Your task to perform on an android device: Open Google Chrome and click the shortcut for Amazon.com Image 0: 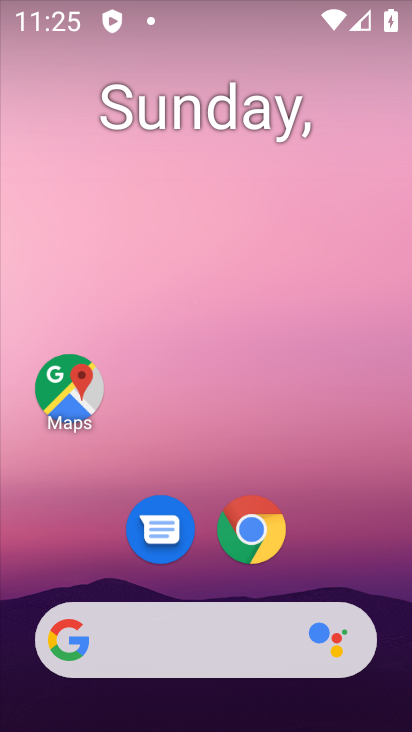
Step 0: click (250, 530)
Your task to perform on an android device: Open Google Chrome and click the shortcut for Amazon.com Image 1: 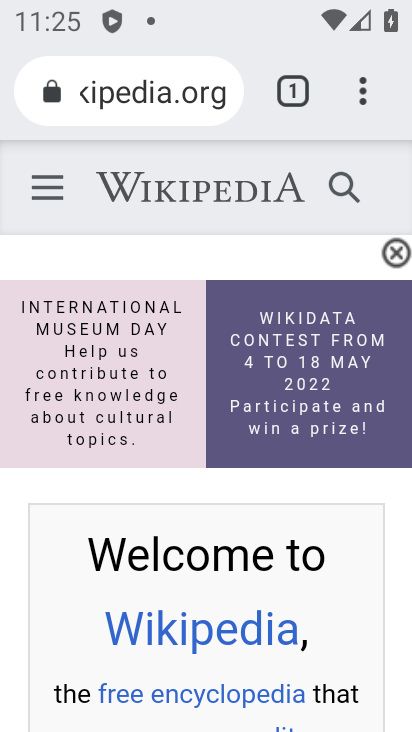
Step 1: click (227, 99)
Your task to perform on an android device: Open Google Chrome and click the shortcut for Amazon.com Image 2: 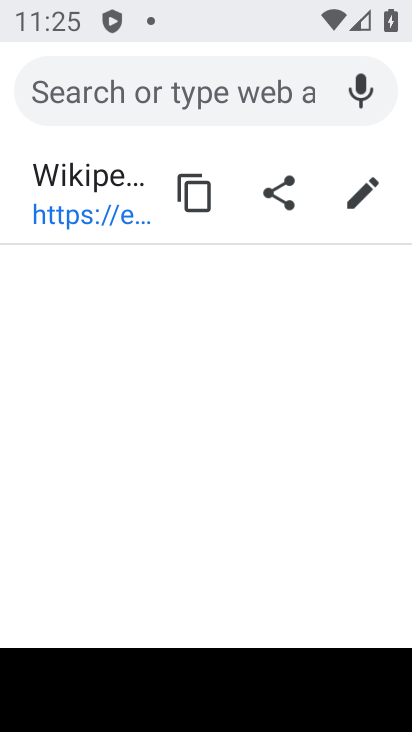
Step 2: type "Amazon.com"
Your task to perform on an android device: Open Google Chrome and click the shortcut for Amazon.com Image 3: 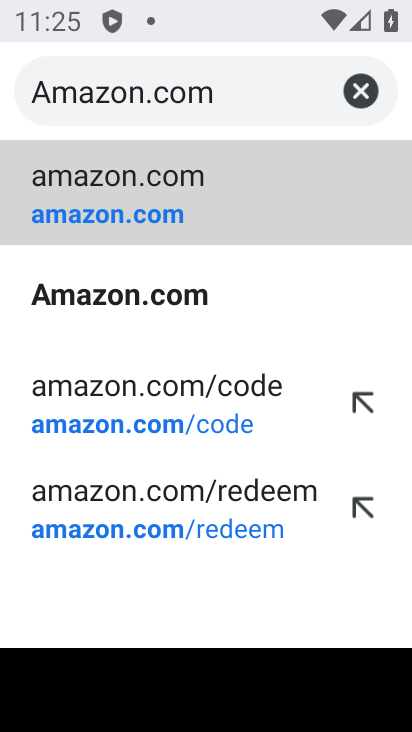
Step 3: click (60, 292)
Your task to perform on an android device: Open Google Chrome and click the shortcut for Amazon.com Image 4: 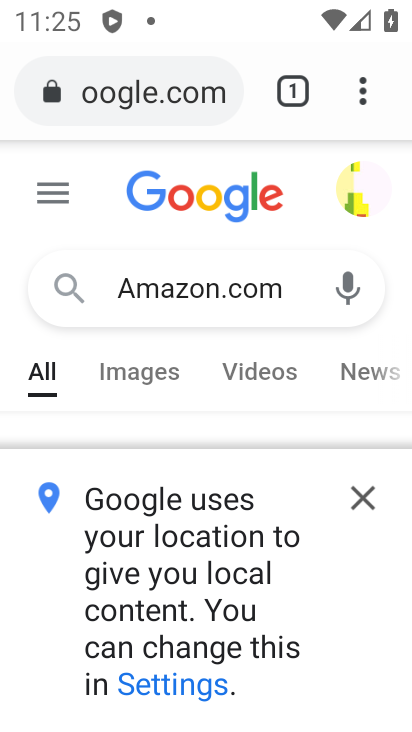
Step 4: click (368, 489)
Your task to perform on an android device: Open Google Chrome and click the shortcut for Amazon.com Image 5: 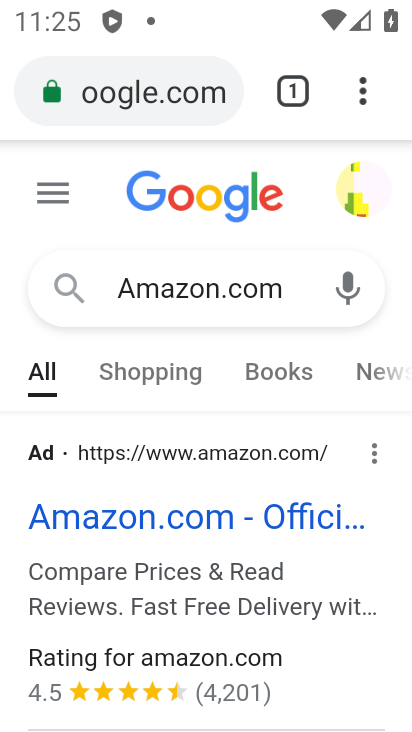
Step 5: click (165, 522)
Your task to perform on an android device: Open Google Chrome and click the shortcut for Amazon.com Image 6: 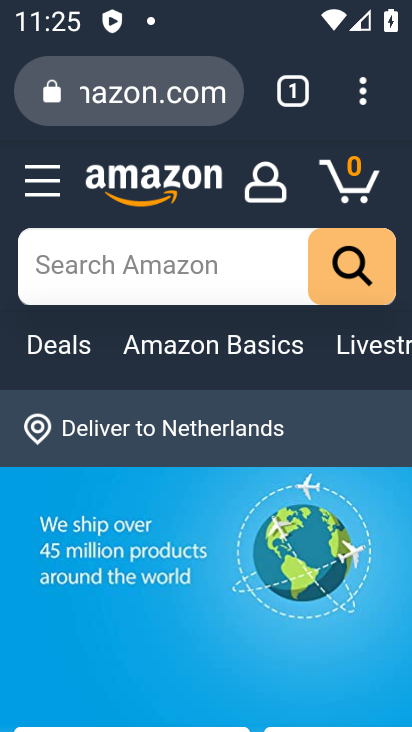
Step 6: click (366, 91)
Your task to perform on an android device: Open Google Chrome and click the shortcut for Amazon.com Image 7: 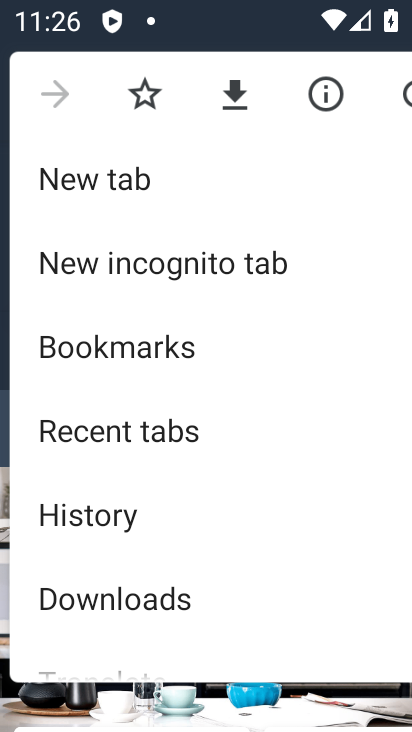
Step 7: drag from (123, 577) to (245, 416)
Your task to perform on an android device: Open Google Chrome and click the shortcut for Amazon.com Image 8: 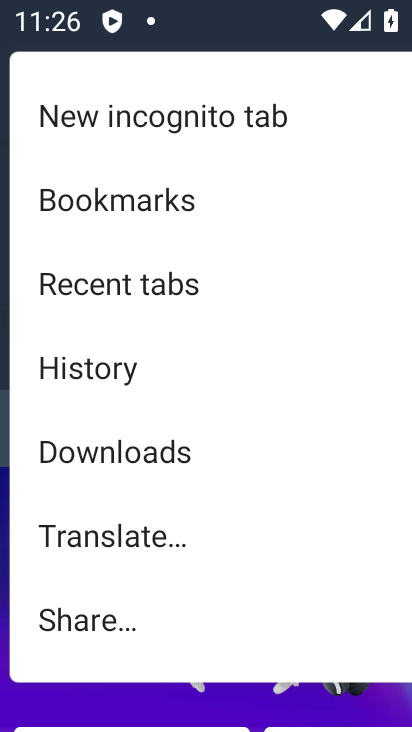
Step 8: drag from (212, 535) to (246, 500)
Your task to perform on an android device: Open Google Chrome and click the shortcut for Amazon.com Image 9: 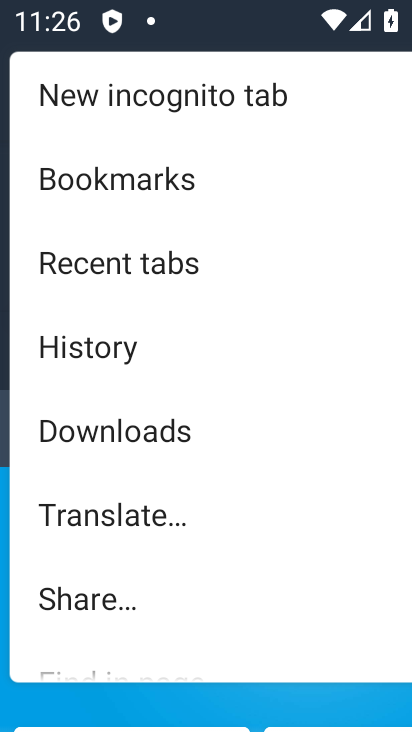
Step 9: drag from (183, 575) to (281, 449)
Your task to perform on an android device: Open Google Chrome and click the shortcut for Amazon.com Image 10: 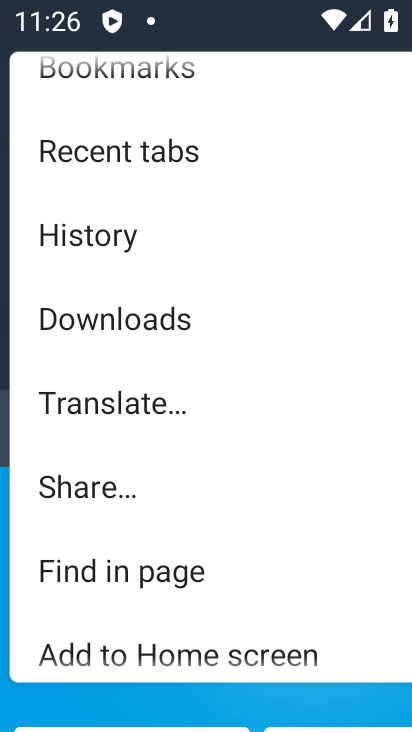
Step 10: drag from (231, 585) to (312, 491)
Your task to perform on an android device: Open Google Chrome and click the shortcut for Amazon.com Image 11: 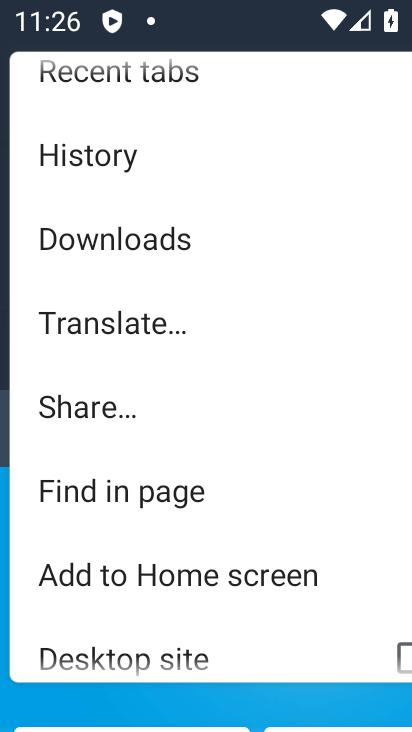
Step 11: click (231, 569)
Your task to perform on an android device: Open Google Chrome and click the shortcut for Amazon.com Image 12: 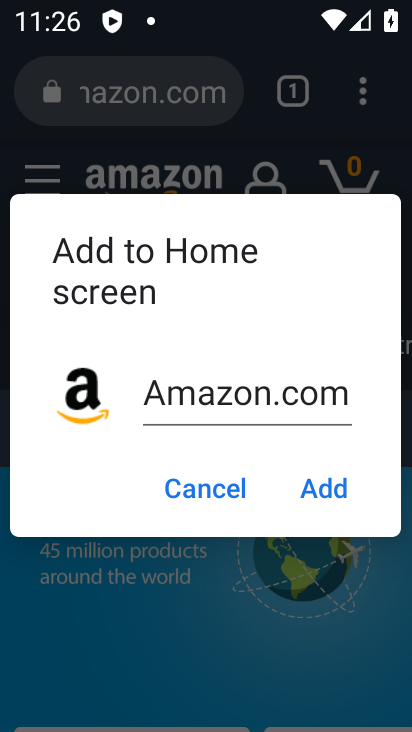
Step 12: click (313, 496)
Your task to perform on an android device: Open Google Chrome and click the shortcut for Amazon.com Image 13: 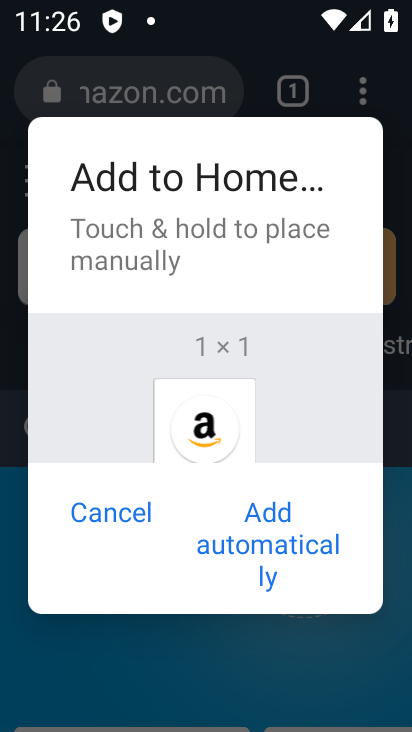
Step 13: click (275, 532)
Your task to perform on an android device: Open Google Chrome and click the shortcut for Amazon.com Image 14: 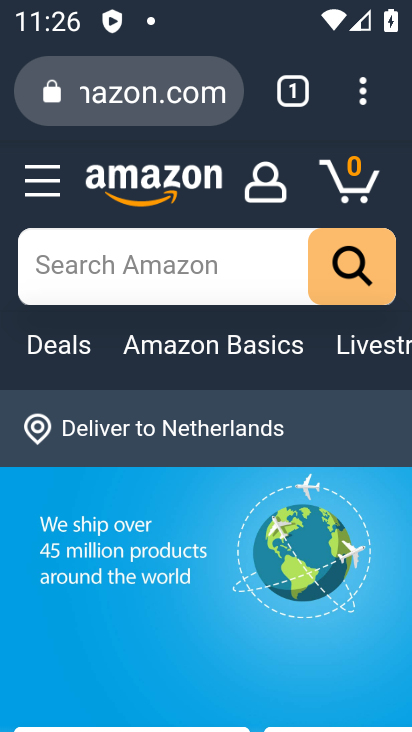
Step 14: task complete